Your task to perform on an android device: Set the phone to "Do not disturb". Image 0: 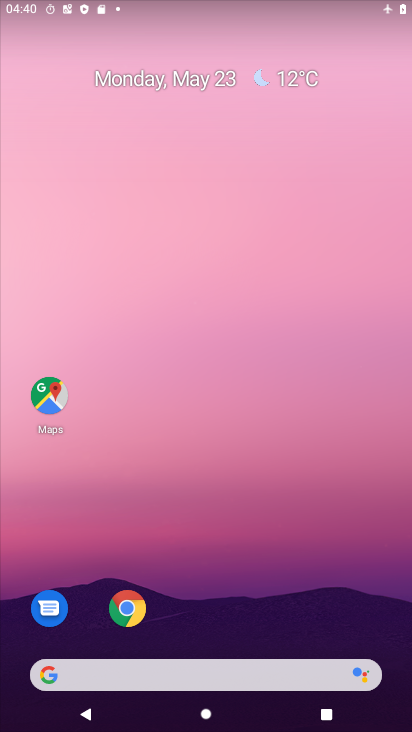
Step 0: drag from (290, 597) to (135, 0)
Your task to perform on an android device: Set the phone to "Do not disturb". Image 1: 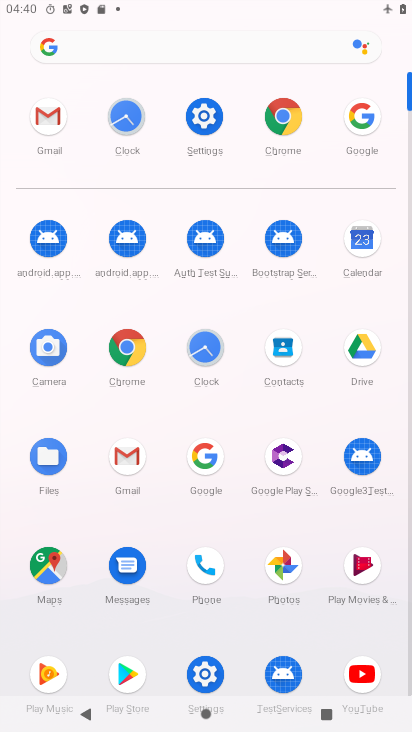
Step 1: click (212, 122)
Your task to perform on an android device: Set the phone to "Do not disturb". Image 2: 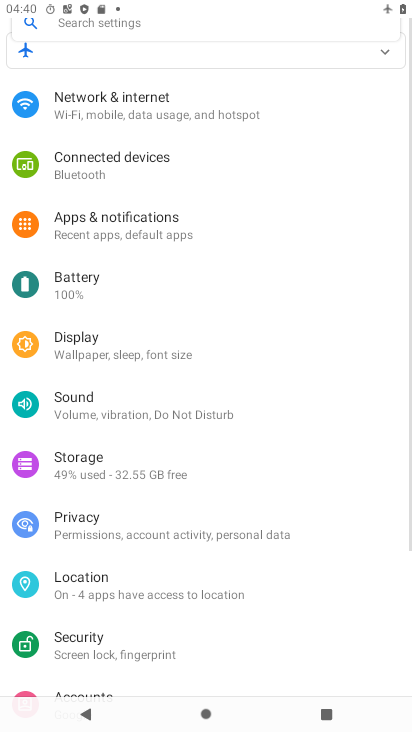
Step 2: click (158, 405)
Your task to perform on an android device: Set the phone to "Do not disturb". Image 3: 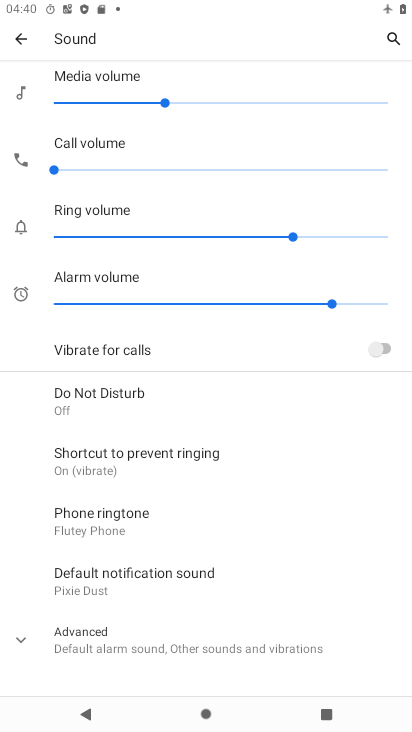
Step 3: click (151, 385)
Your task to perform on an android device: Set the phone to "Do not disturb". Image 4: 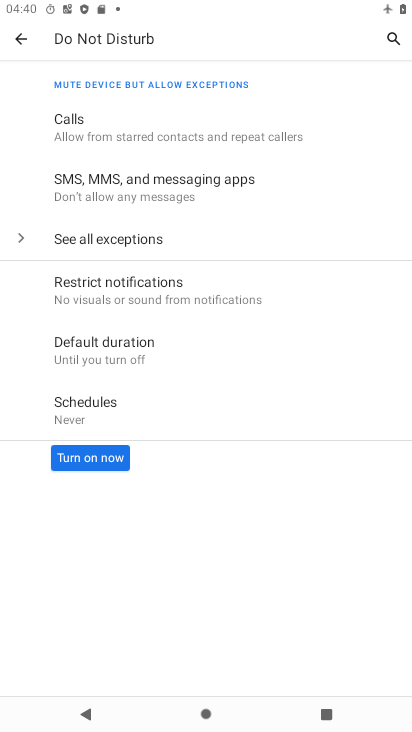
Step 4: click (105, 455)
Your task to perform on an android device: Set the phone to "Do not disturb". Image 5: 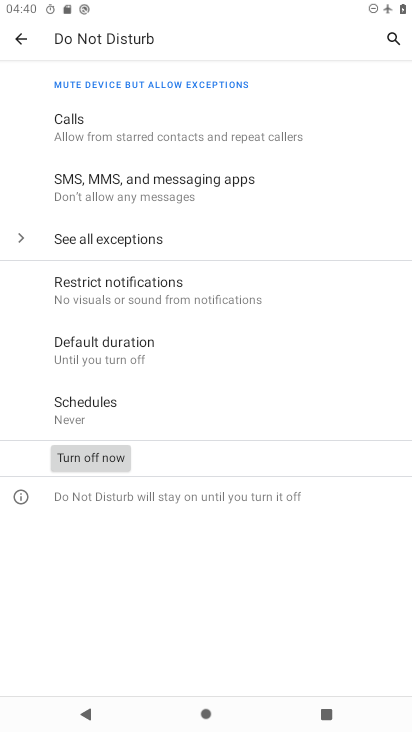
Step 5: task complete